Your task to perform on an android device: Go to wifi settings Image 0: 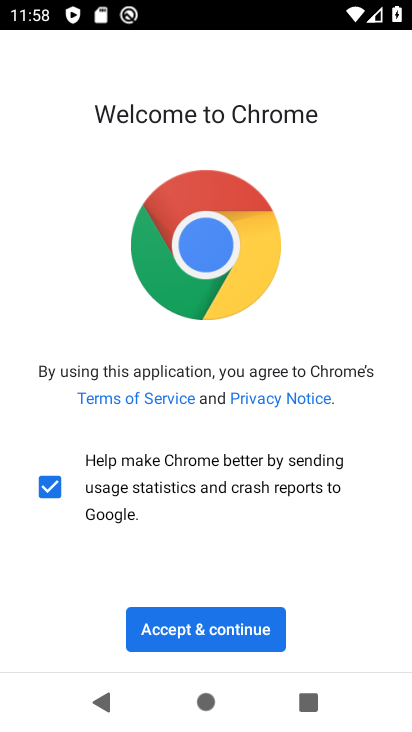
Step 0: click (186, 616)
Your task to perform on an android device: Go to wifi settings Image 1: 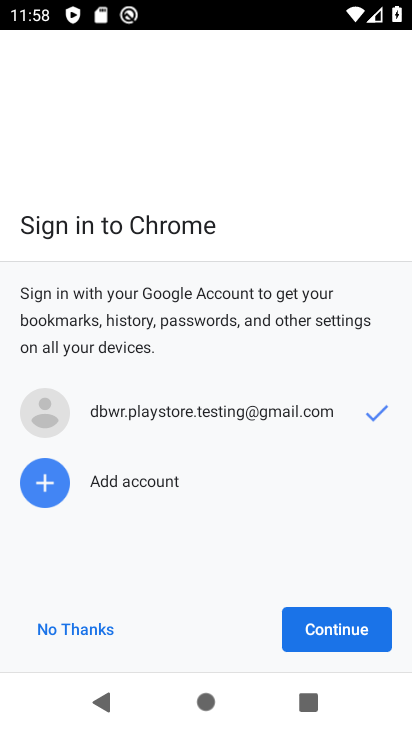
Step 1: click (311, 611)
Your task to perform on an android device: Go to wifi settings Image 2: 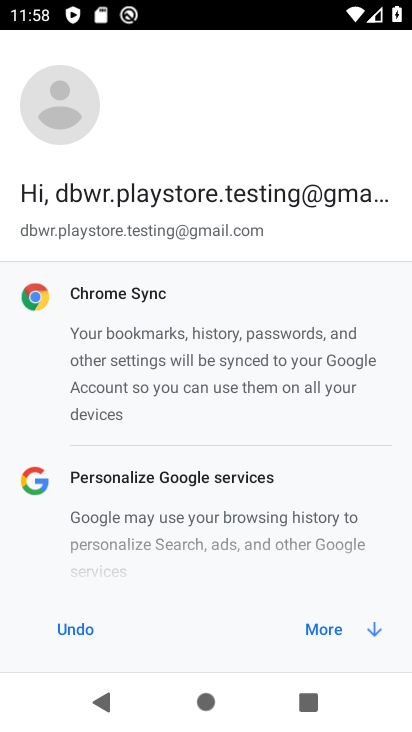
Step 2: click (327, 620)
Your task to perform on an android device: Go to wifi settings Image 3: 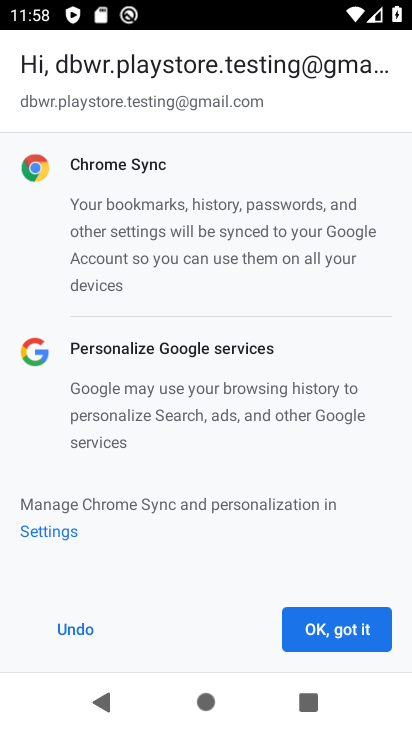
Step 3: press home button
Your task to perform on an android device: Go to wifi settings Image 4: 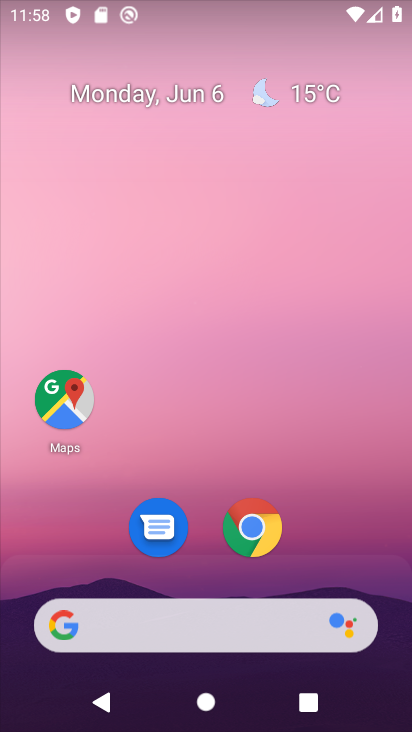
Step 4: drag from (193, 609) to (180, 119)
Your task to perform on an android device: Go to wifi settings Image 5: 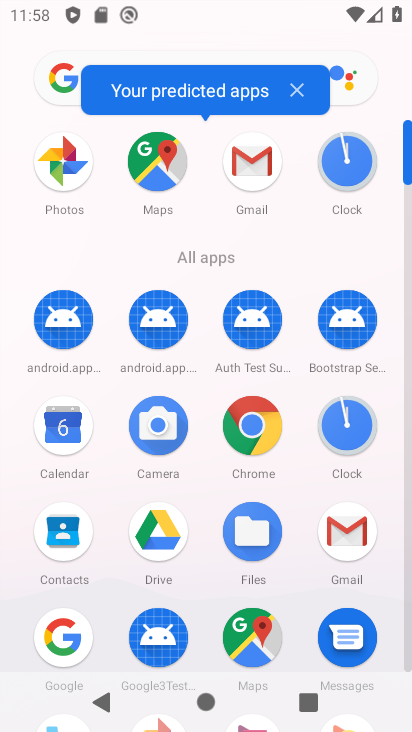
Step 5: drag from (198, 602) to (200, 277)
Your task to perform on an android device: Go to wifi settings Image 6: 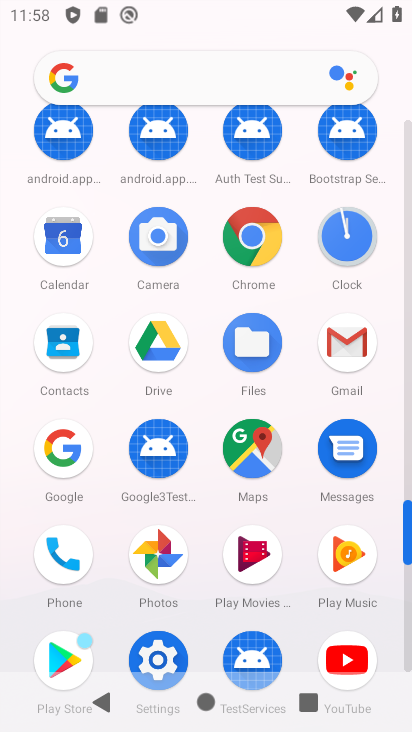
Step 6: click (169, 654)
Your task to perform on an android device: Go to wifi settings Image 7: 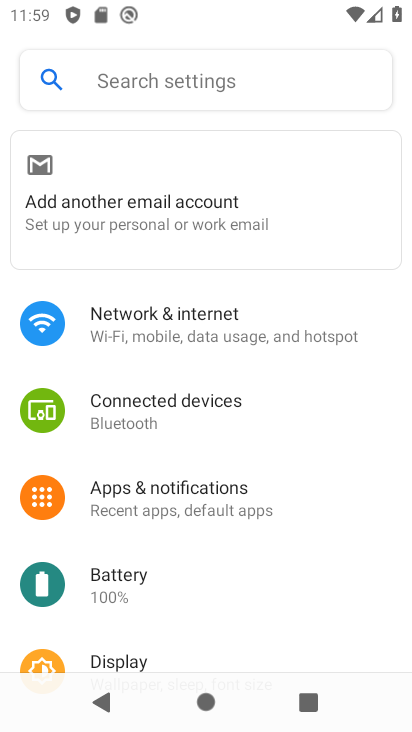
Step 7: click (156, 191)
Your task to perform on an android device: Go to wifi settings Image 8: 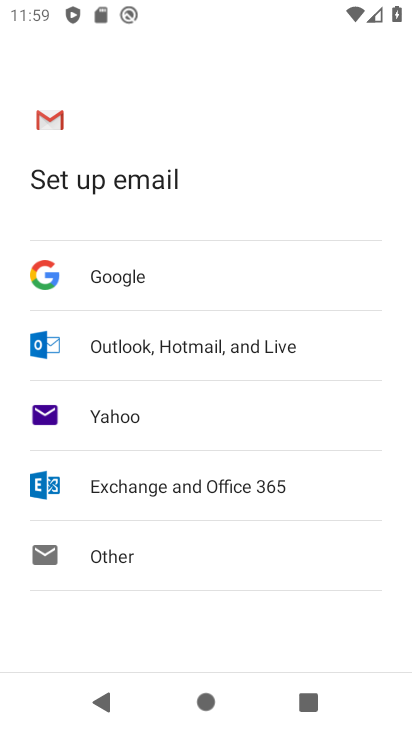
Step 8: press back button
Your task to perform on an android device: Go to wifi settings Image 9: 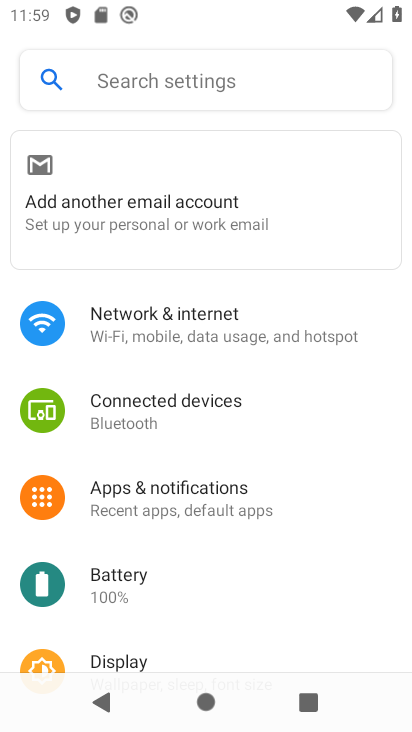
Step 9: click (141, 340)
Your task to perform on an android device: Go to wifi settings Image 10: 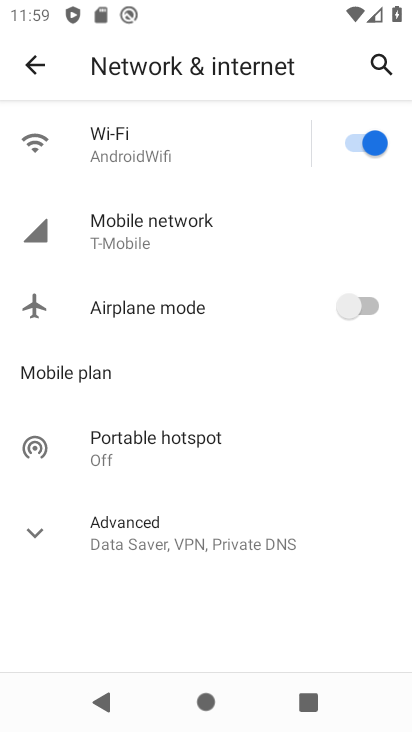
Step 10: click (144, 148)
Your task to perform on an android device: Go to wifi settings Image 11: 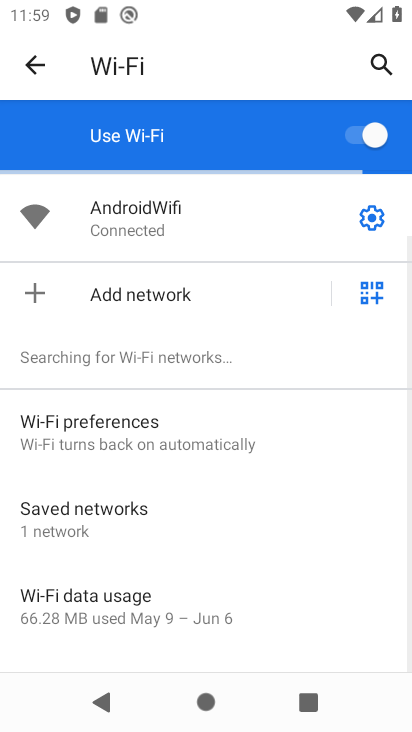
Step 11: click (375, 223)
Your task to perform on an android device: Go to wifi settings Image 12: 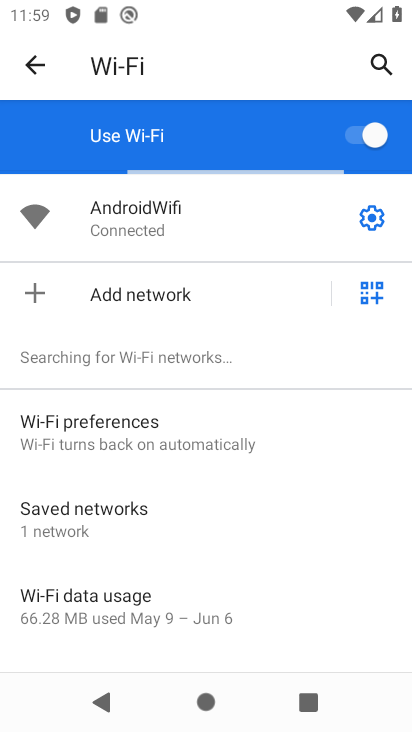
Step 12: click (371, 217)
Your task to perform on an android device: Go to wifi settings Image 13: 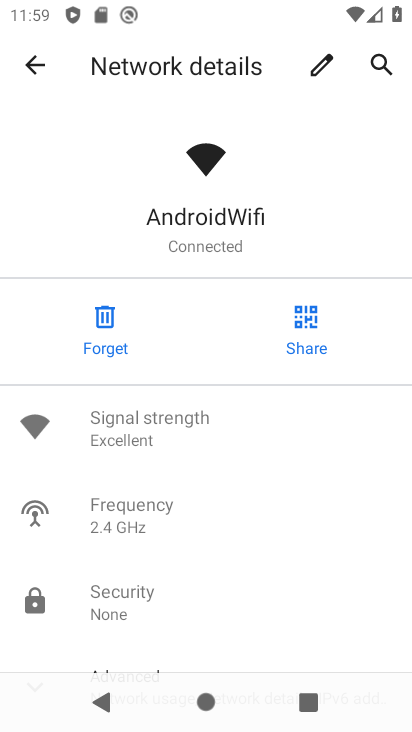
Step 13: task complete